Your task to perform on an android device: Show me popular videos on Youtube Image 0: 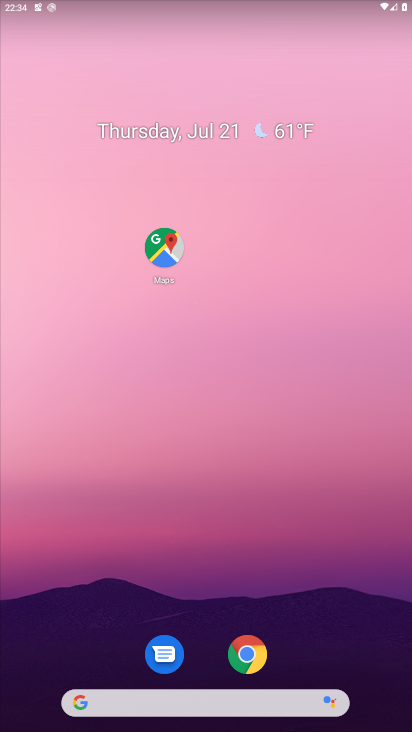
Step 0: drag from (104, 599) to (253, 243)
Your task to perform on an android device: Show me popular videos on Youtube Image 1: 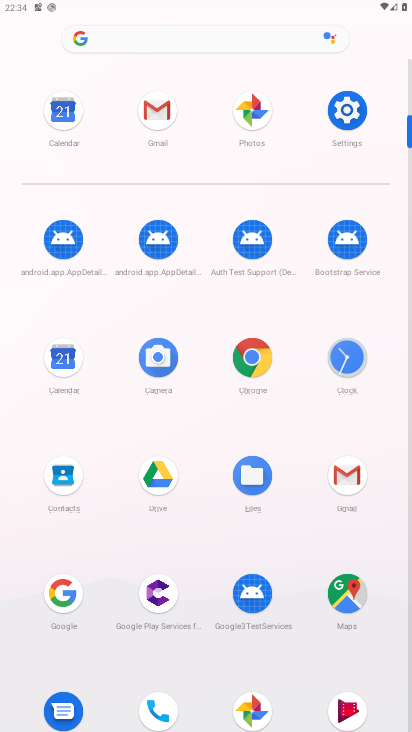
Step 1: drag from (307, 457) to (307, 226)
Your task to perform on an android device: Show me popular videos on Youtube Image 2: 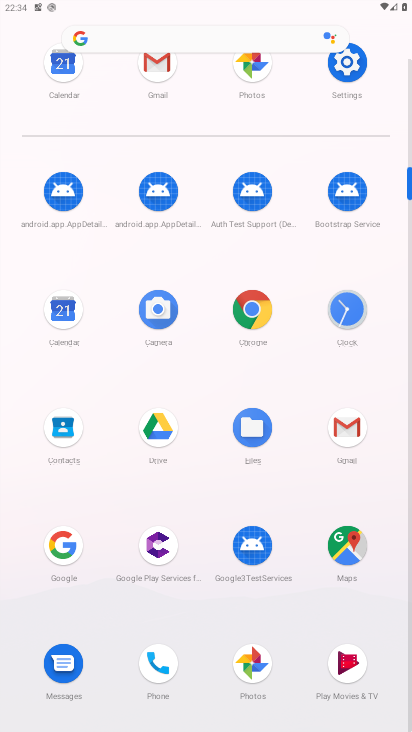
Step 2: drag from (201, 674) to (237, 325)
Your task to perform on an android device: Show me popular videos on Youtube Image 3: 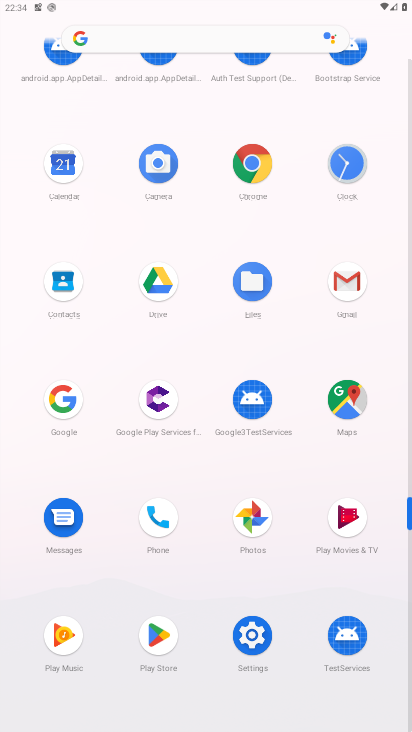
Step 3: drag from (227, 485) to (273, 257)
Your task to perform on an android device: Show me popular videos on Youtube Image 4: 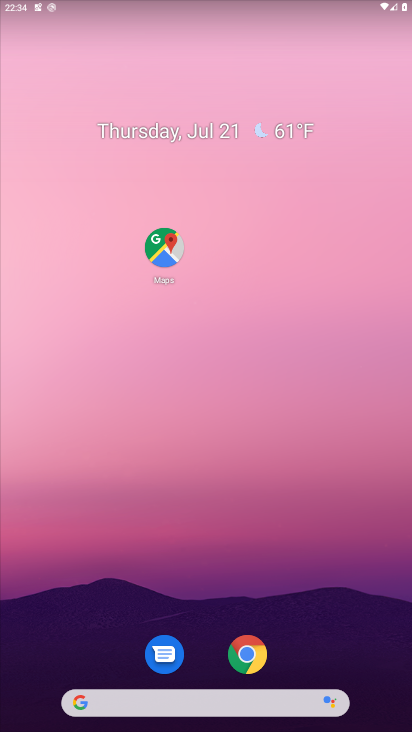
Step 4: drag from (226, 174) to (226, 532)
Your task to perform on an android device: Show me popular videos on Youtube Image 5: 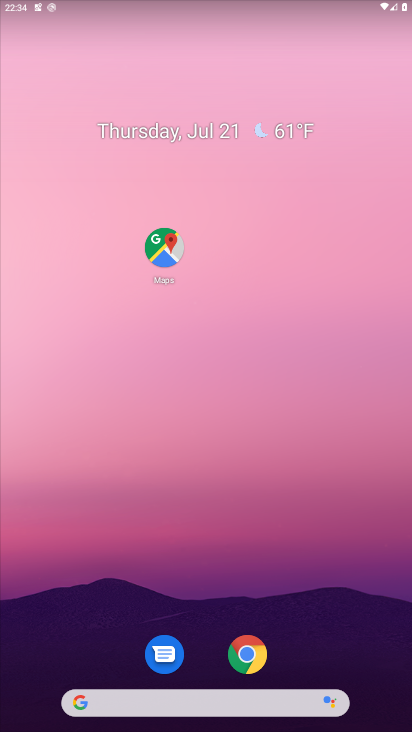
Step 5: drag from (167, 426) to (237, 250)
Your task to perform on an android device: Show me popular videos on Youtube Image 6: 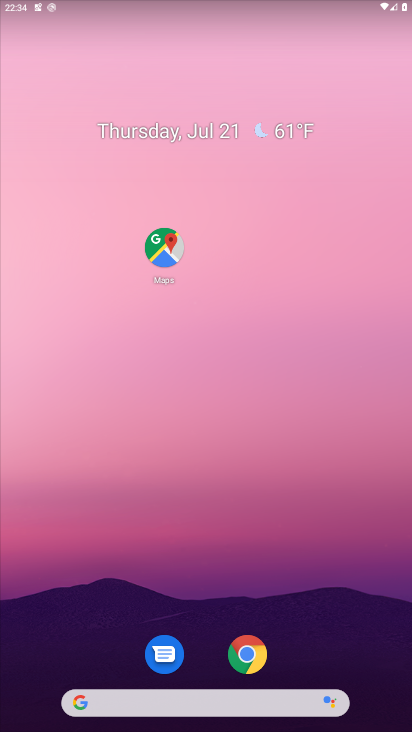
Step 6: drag from (18, 688) to (259, 36)
Your task to perform on an android device: Show me popular videos on Youtube Image 7: 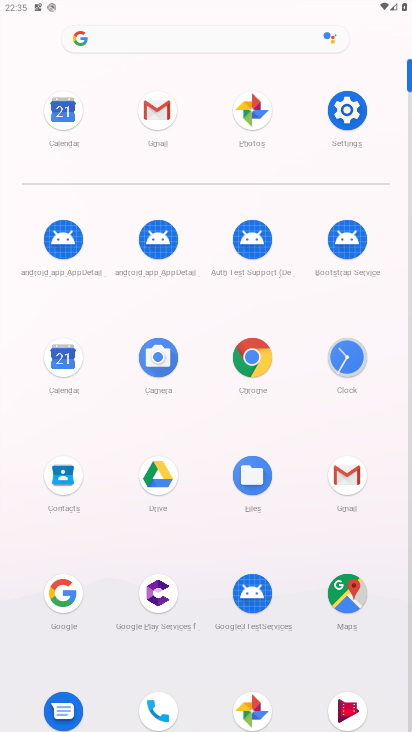
Step 7: drag from (215, 658) to (259, 306)
Your task to perform on an android device: Show me popular videos on Youtube Image 8: 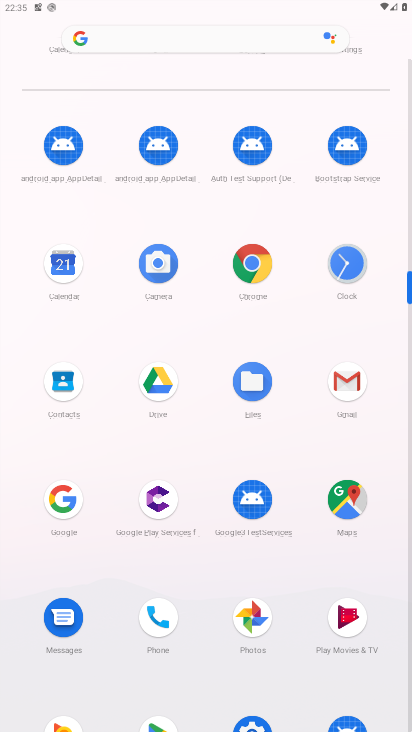
Step 8: click (260, 265)
Your task to perform on an android device: Show me popular videos on Youtube Image 9: 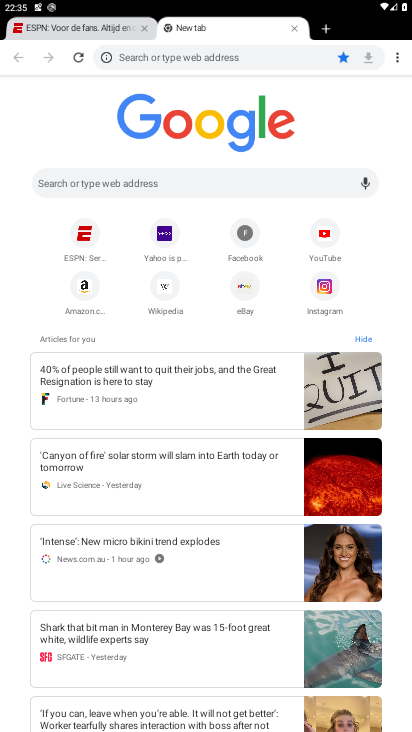
Step 9: task complete